Your task to perform on an android device: Go to calendar. Show me events next week Image 0: 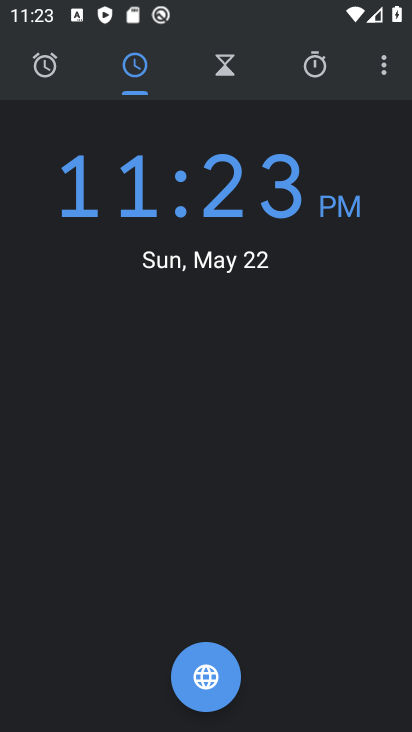
Step 0: press home button
Your task to perform on an android device: Go to calendar. Show me events next week Image 1: 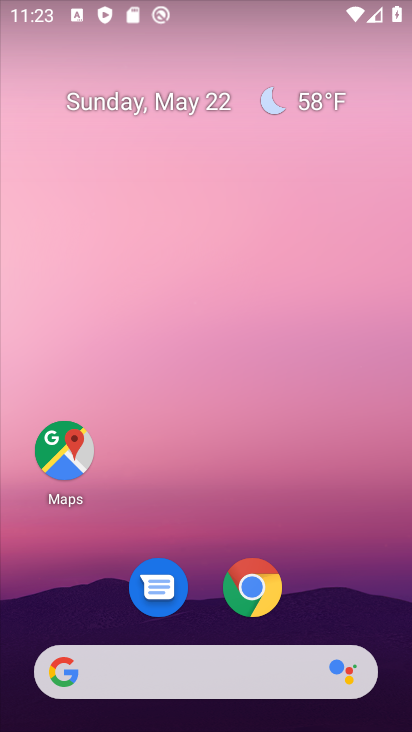
Step 1: drag from (182, 537) to (197, 16)
Your task to perform on an android device: Go to calendar. Show me events next week Image 2: 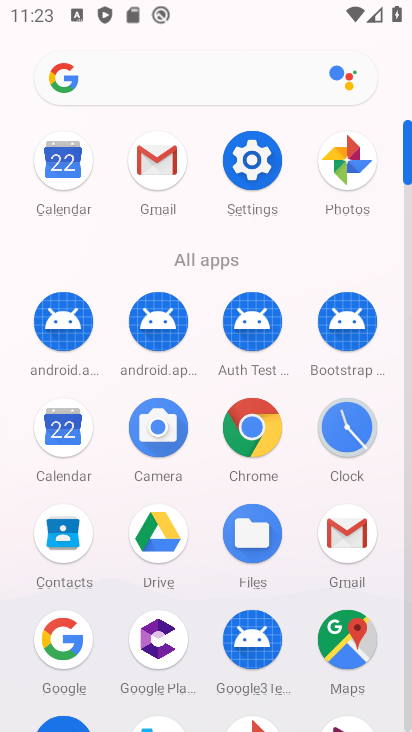
Step 2: click (57, 154)
Your task to perform on an android device: Go to calendar. Show me events next week Image 3: 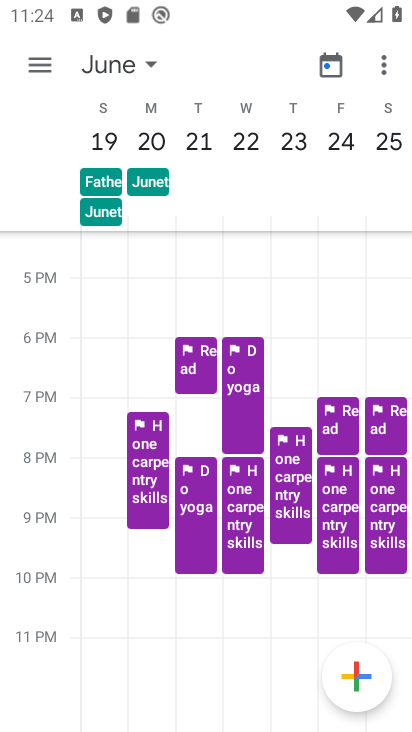
Step 3: task complete